Your task to perform on an android device: change your default location settings in chrome Image 0: 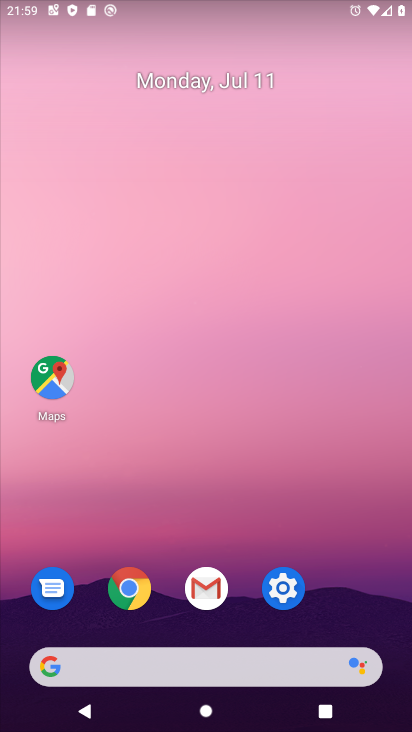
Step 0: drag from (228, 680) to (304, 269)
Your task to perform on an android device: change your default location settings in chrome Image 1: 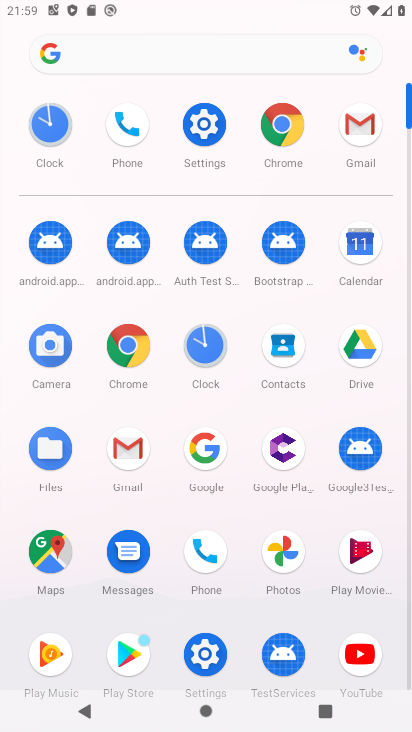
Step 1: click (128, 366)
Your task to perform on an android device: change your default location settings in chrome Image 2: 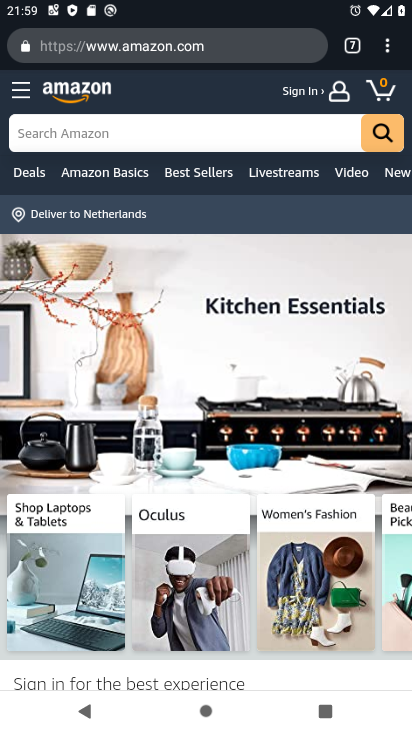
Step 2: click (375, 59)
Your task to perform on an android device: change your default location settings in chrome Image 3: 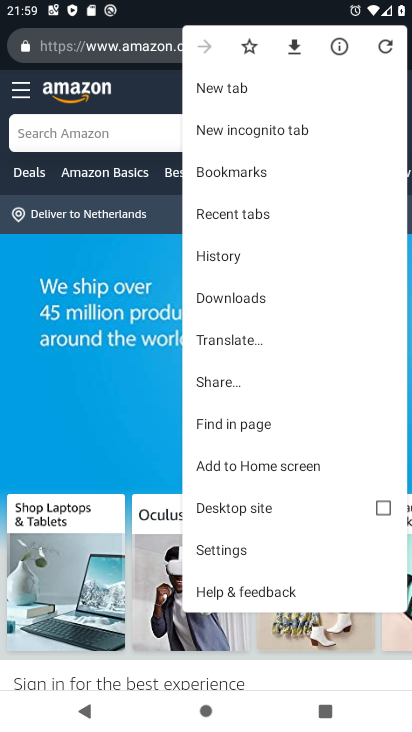
Step 3: click (226, 555)
Your task to perform on an android device: change your default location settings in chrome Image 4: 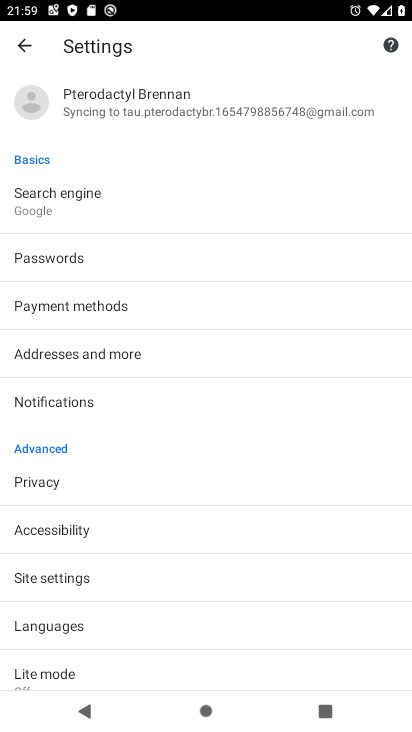
Step 4: click (66, 573)
Your task to perform on an android device: change your default location settings in chrome Image 5: 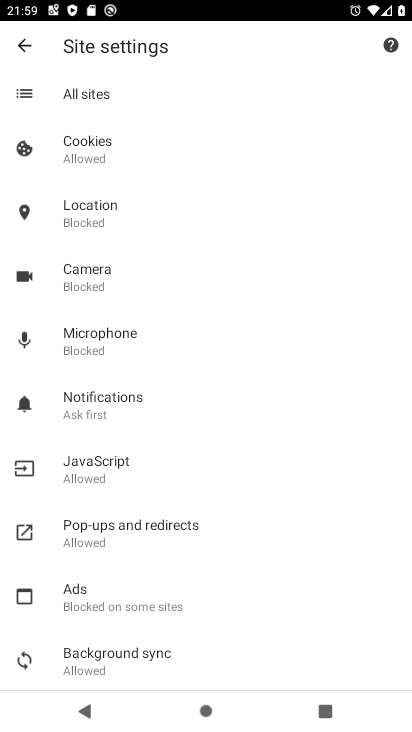
Step 5: click (96, 219)
Your task to perform on an android device: change your default location settings in chrome Image 6: 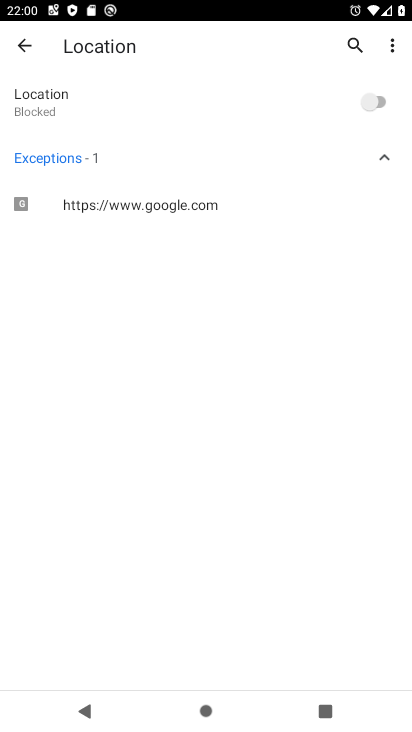
Step 6: task complete